Your task to perform on an android device: Open display settings Image 0: 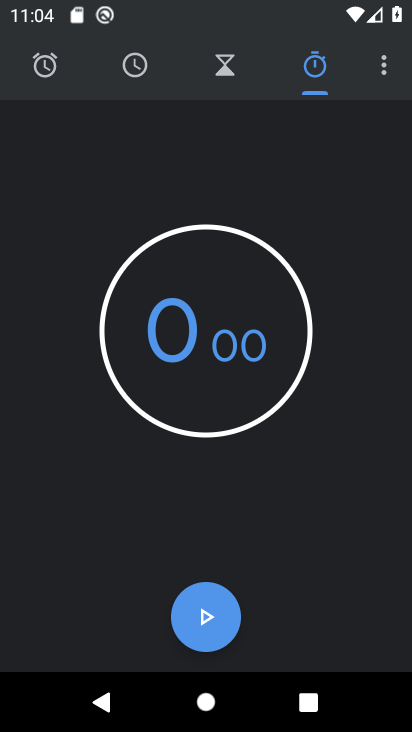
Step 0: press home button
Your task to perform on an android device: Open display settings Image 1: 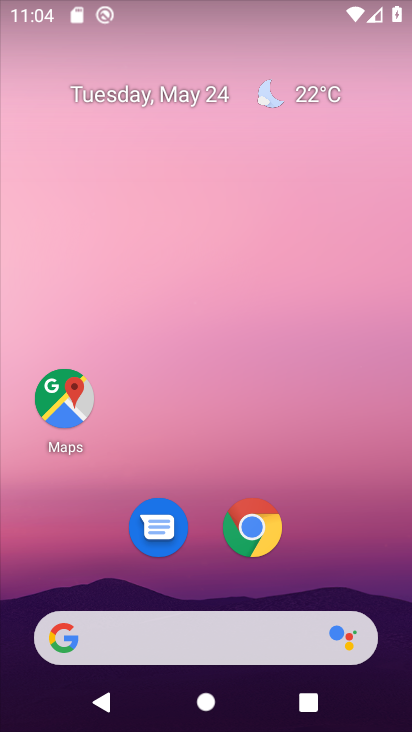
Step 1: drag from (188, 645) to (308, 49)
Your task to perform on an android device: Open display settings Image 2: 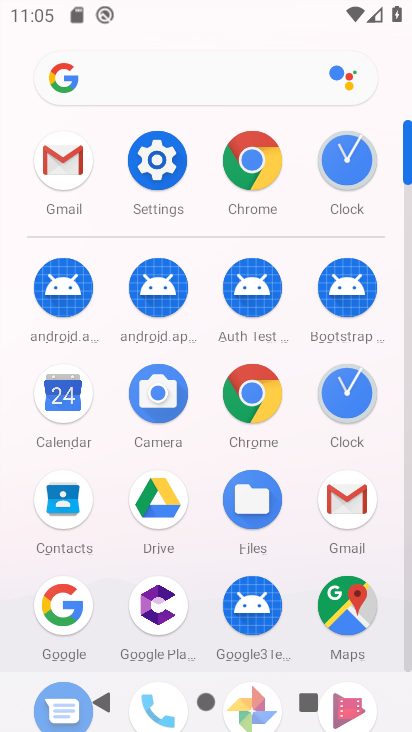
Step 2: click (158, 168)
Your task to perform on an android device: Open display settings Image 3: 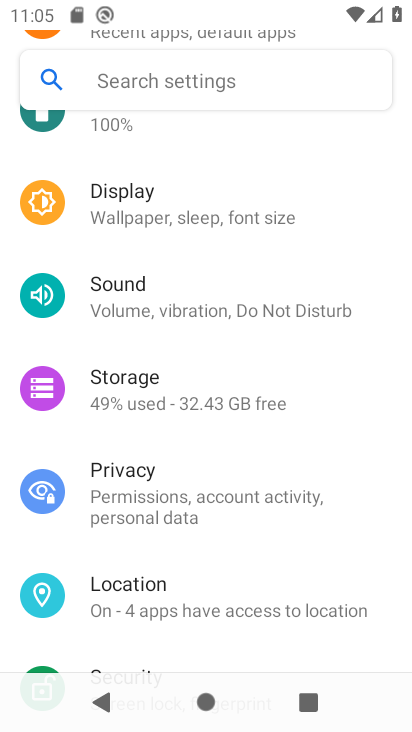
Step 3: drag from (326, 177) to (295, 433)
Your task to perform on an android device: Open display settings Image 4: 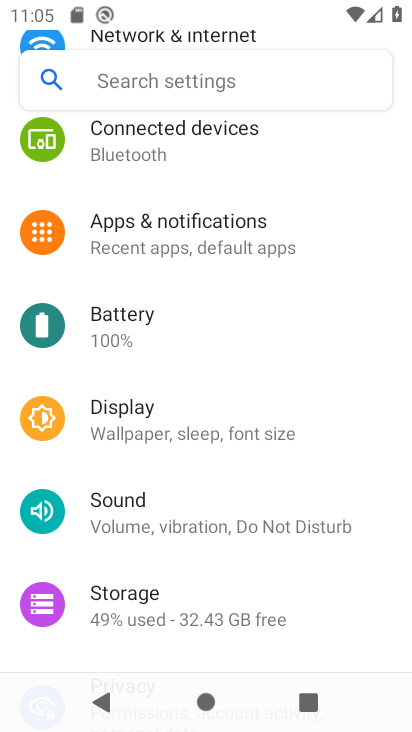
Step 4: click (145, 435)
Your task to perform on an android device: Open display settings Image 5: 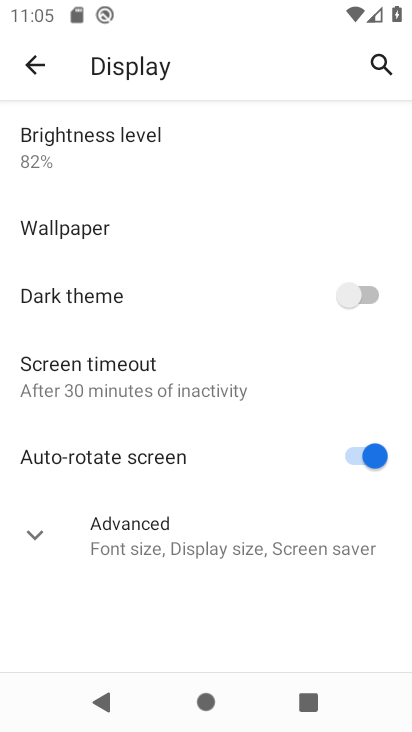
Step 5: task complete